Your task to perform on an android device: allow notifications from all sites in the chrome app Image 0: 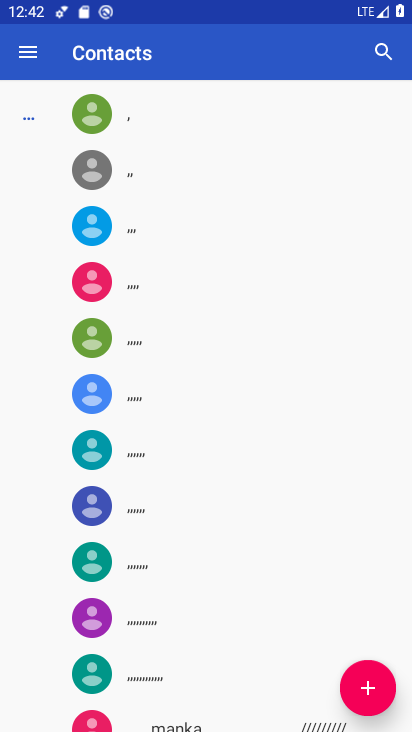
Step 0: press home button
Your task to perform on an android device: allow notifications from all sites in the chrome app Image 1: 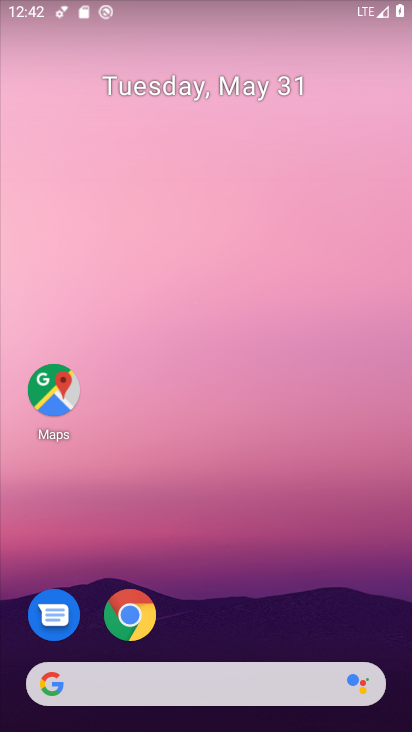
Step 1: drag from (258, 623) to (289, 36)
Your task to perform on an android device: allow notifications from all sites in the chrome app Image 2: 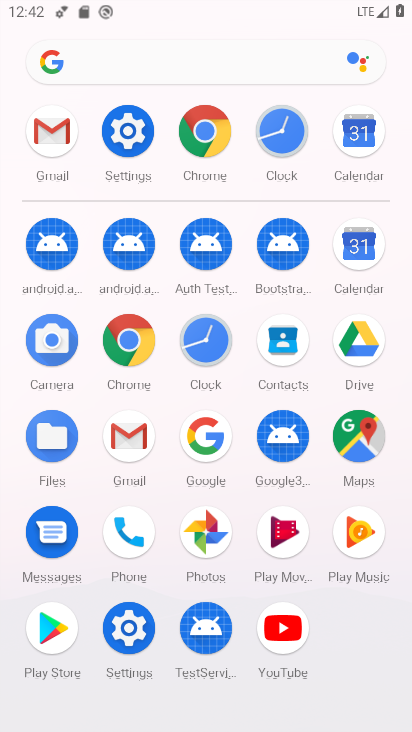
Step 2: click (138, 349)
Your task to perform on an android device: allow notifications from all sites in the chrome app Image 3: 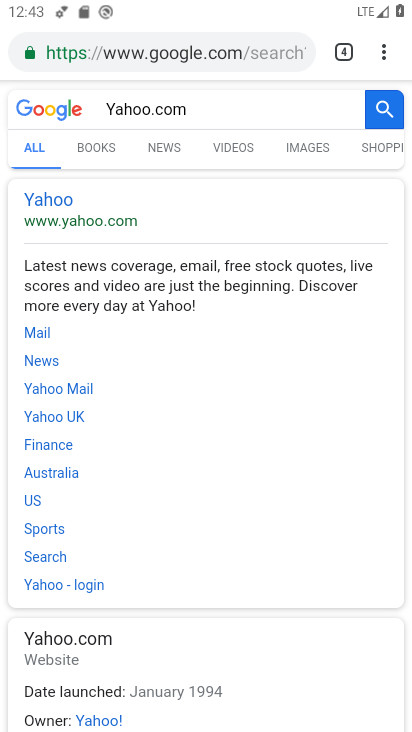
Step 3: click (386, 61)
Your task to perform on an android device: allow notifications from all sites in the chrome app Image 4: 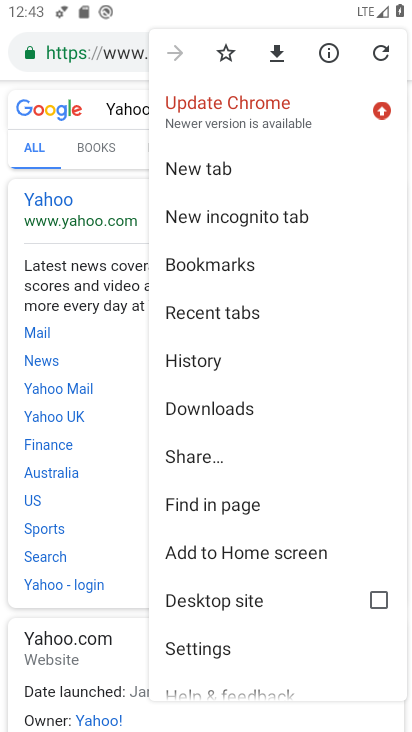
Step 4: click (210, 643)
Your task to perform on an android device: allow notifications from all sites in the chrome app Image 5: 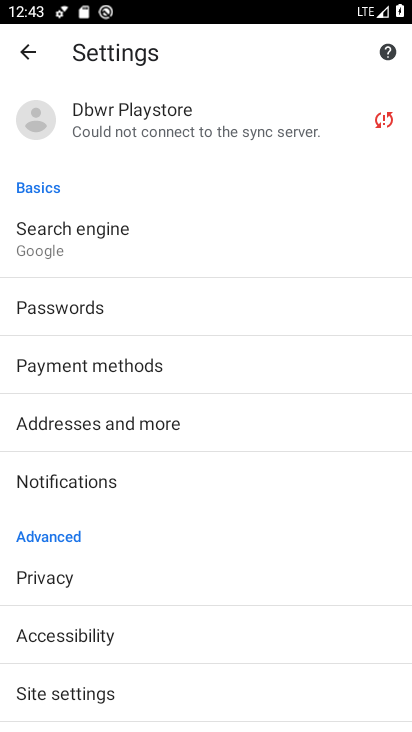
Step 5: click (120, 486)
Your task to perform on an android device: allow notifications from all sites in the chrome app Image 6: 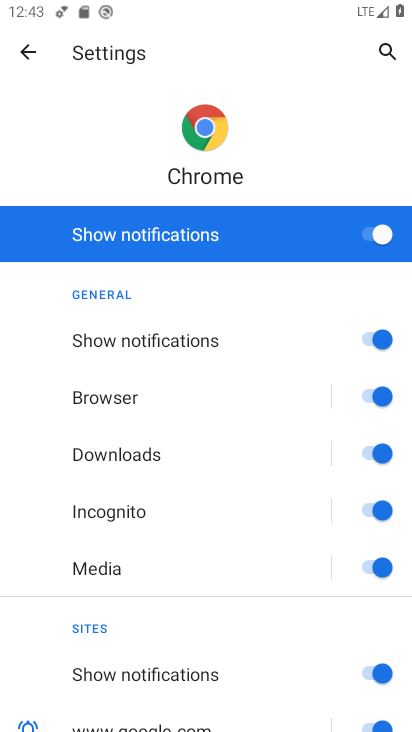
Step 6: task complete